Your task to perform on an android device: toggle priority inbox in the gmail app Image 0: 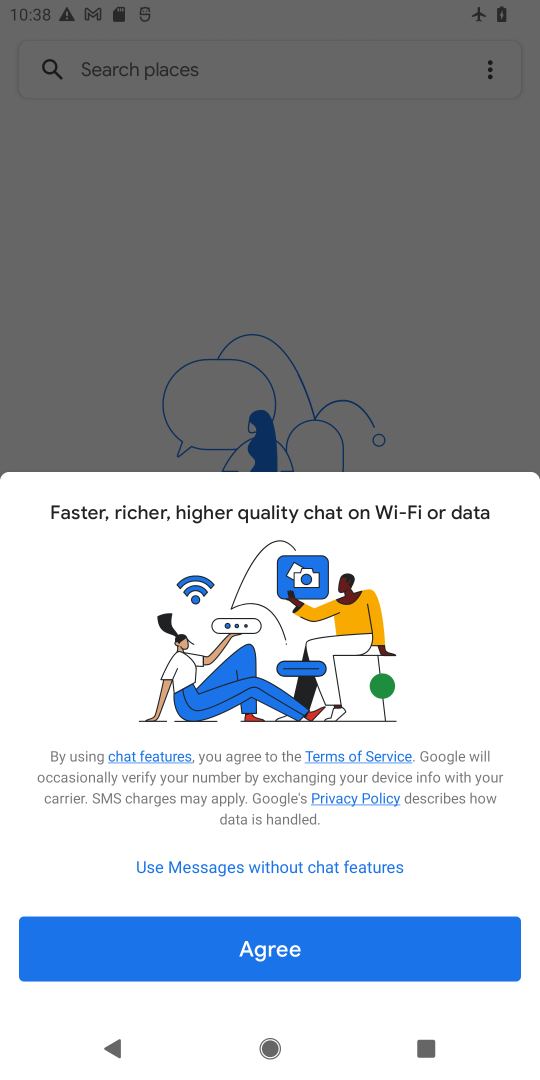
Step 0: press home button
Your task to perform on an android device: toggle priority inbox in the gmail app Image 1: 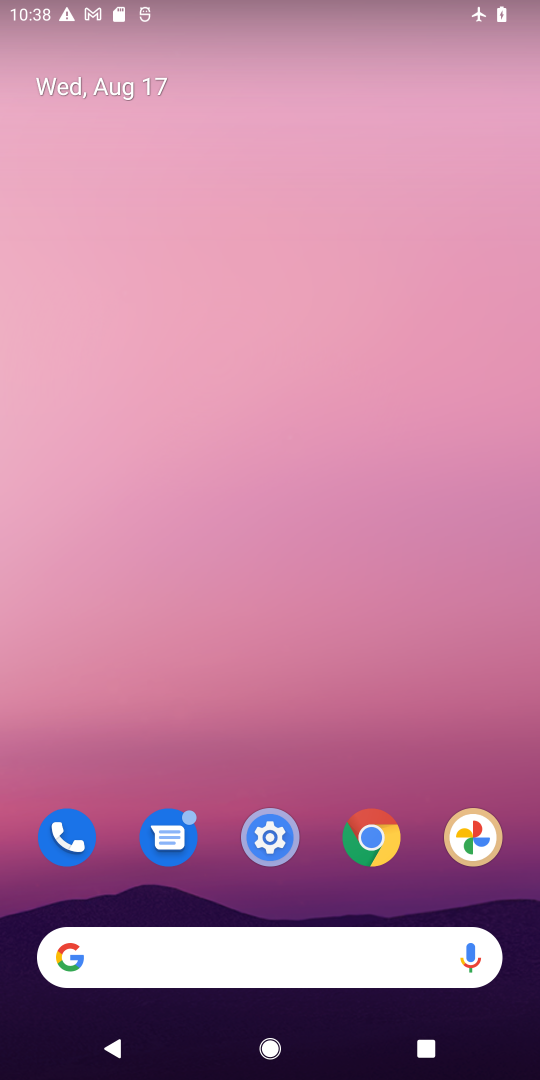
Step 1: drag from (182, 953) to (270, 353)
Your task to perform on an android device: toggle priority inbox in the gmail app Image 2: 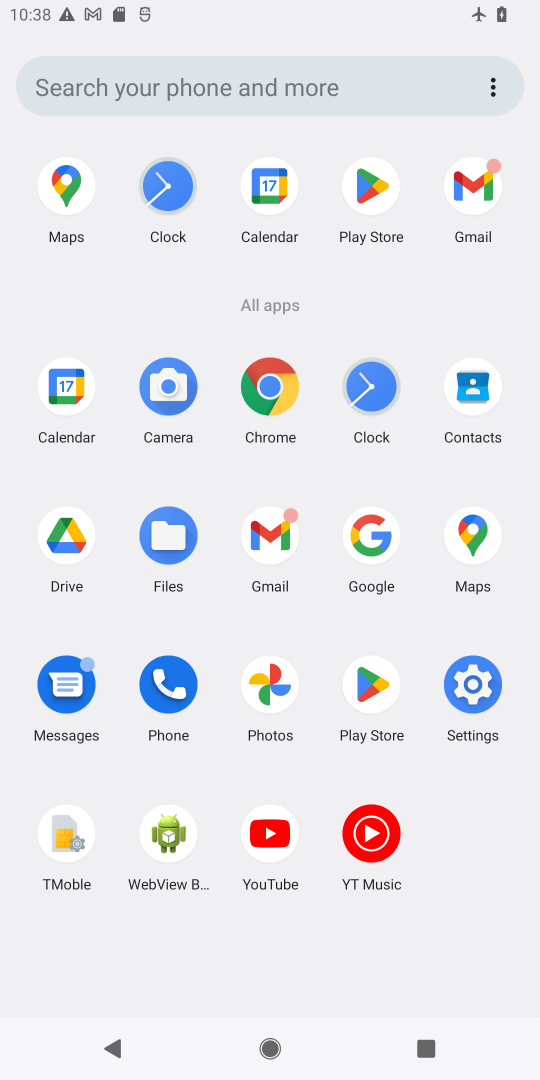
Step 2: click (467, 187)
Your task to perform on an android device: toggle priority inbox in the gmail app Image 3: 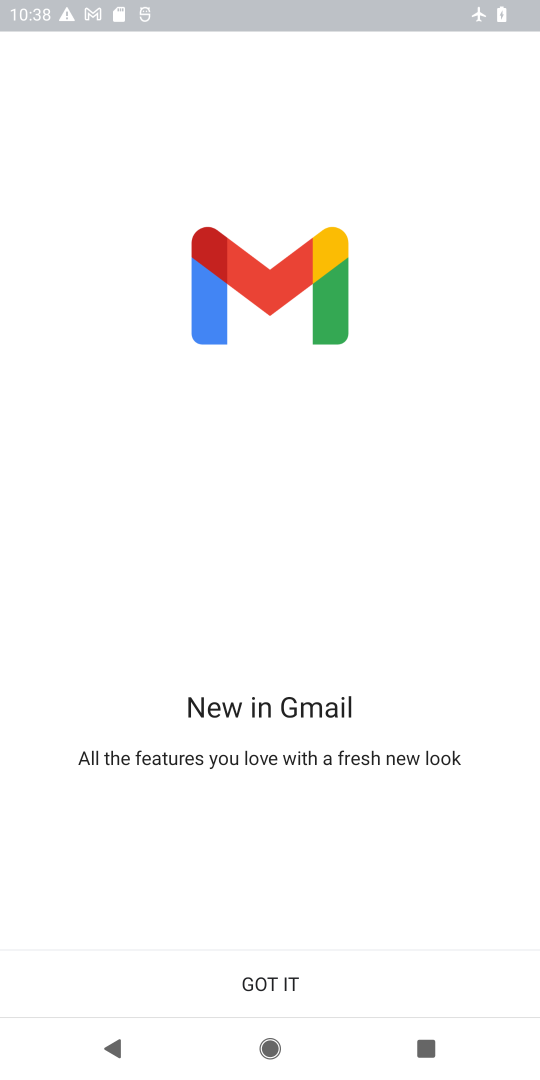
Step 3: click (261, 977)
Your task to perform on an android device: toggle priority inbox in the gmail app Image 4: 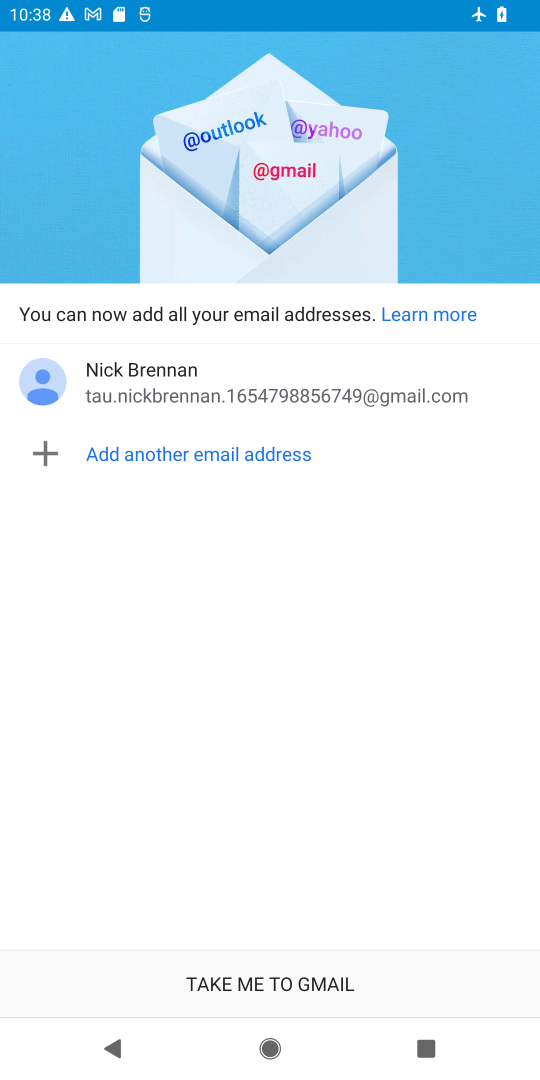
Step 4: click (261, 977)
Your task to perform on an android device: toggle priority inbox in the gmail app Image 5: 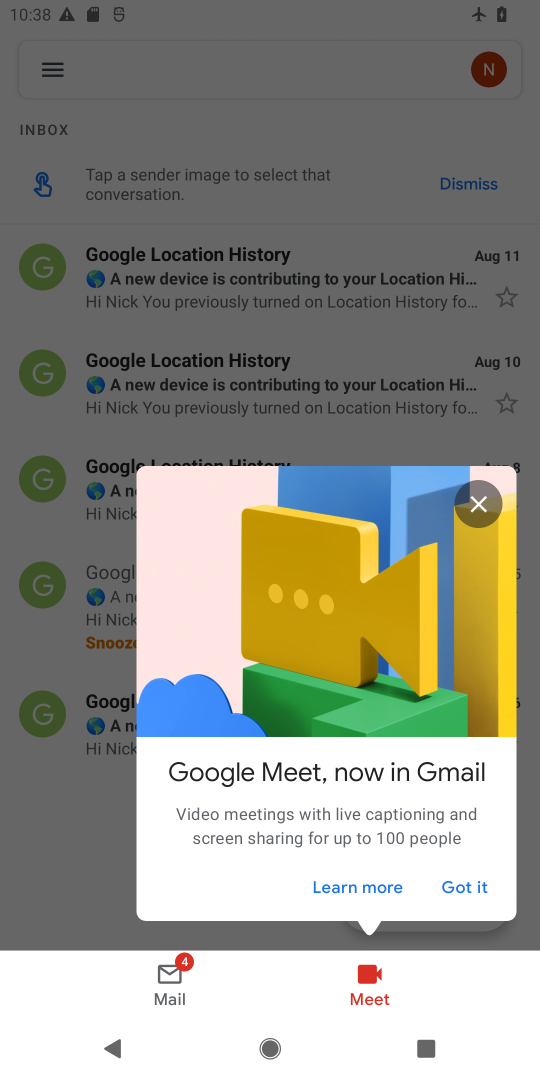
Step 5: click (459, 882)
Your task to perform on an android device: toggle priority inbox in the gmail app Image 6: 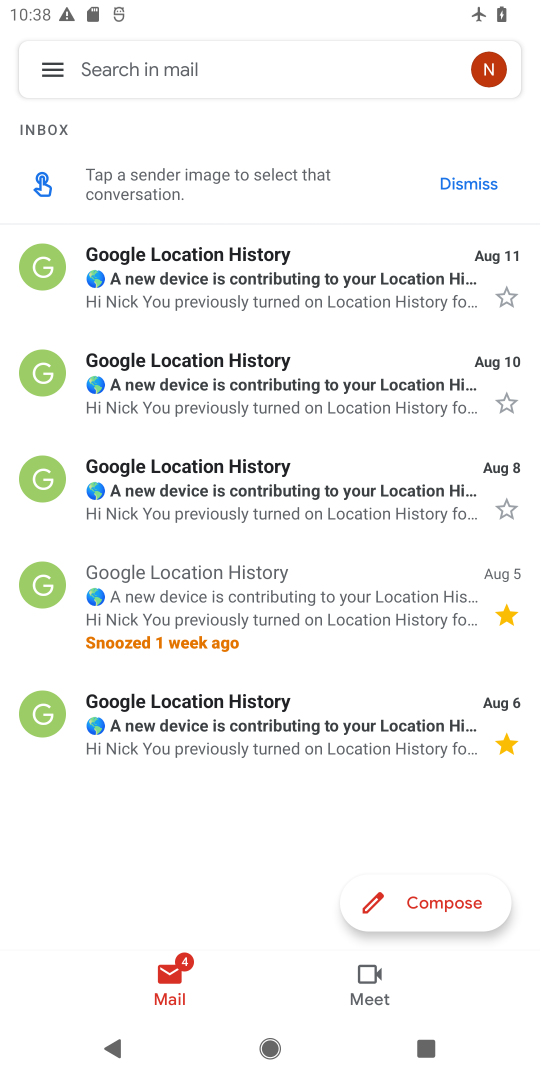
Step 6: click (55, 76)
Your task to perform on an android device: toggle priority inbox in the gmail app Image 7: 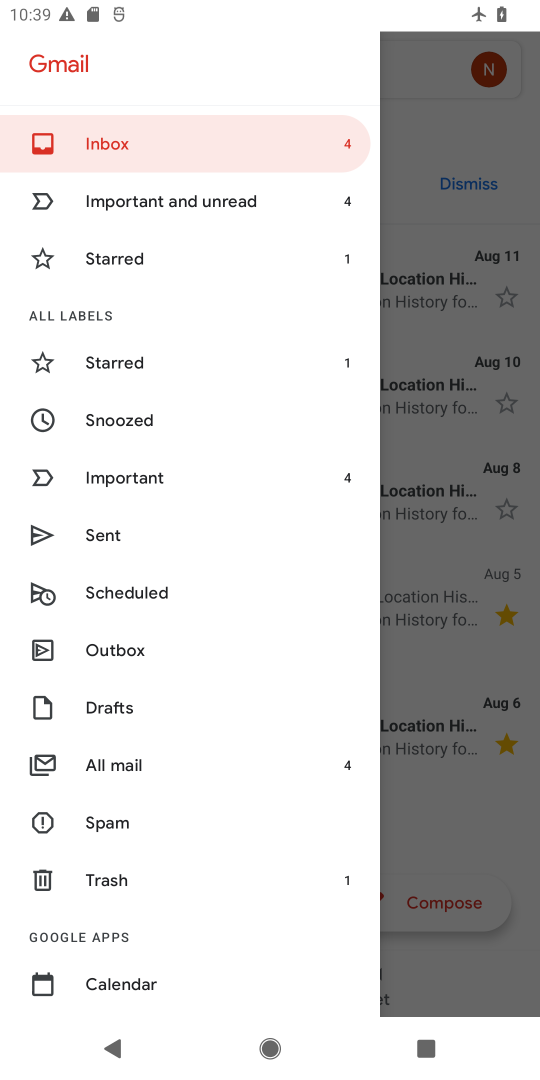
Step 7: drag from (141, 892) to (166, 548)
Your task to perform on an android device: toggle priority inbox in the gmail app Image 8: 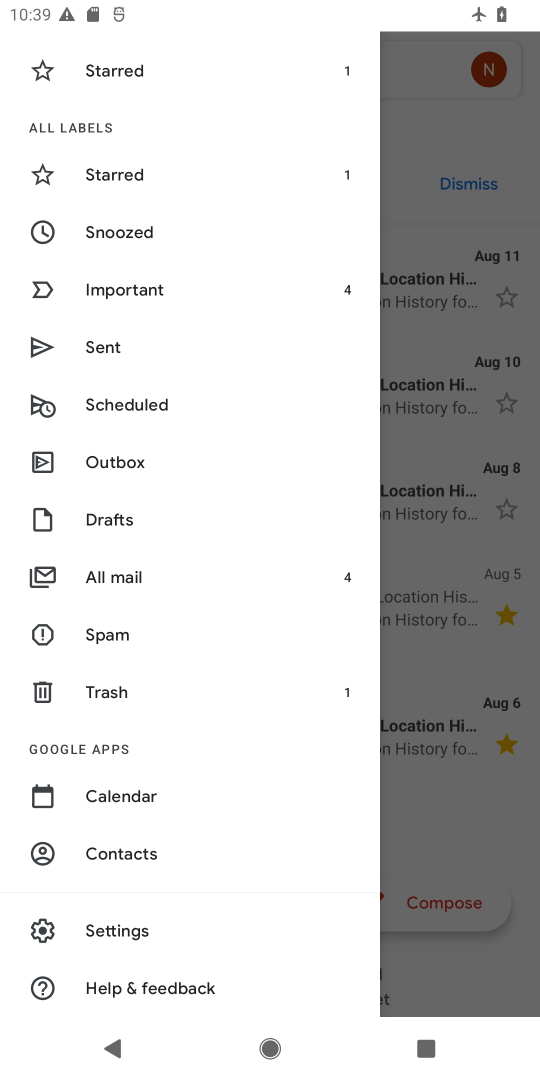
Step 8: click (140, 929)
Your task to perform on an android device: toggle priority inbox in the gmail app Image 9: 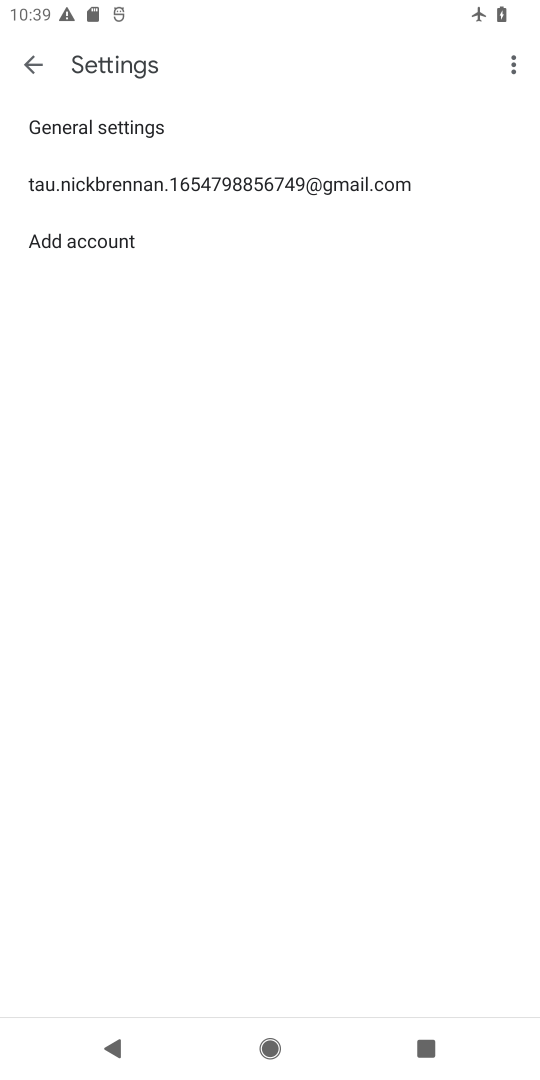
Step 9: click (181, 185)
Your task to perform on an android device: toggle priority inbox in the gmail app Image 10: 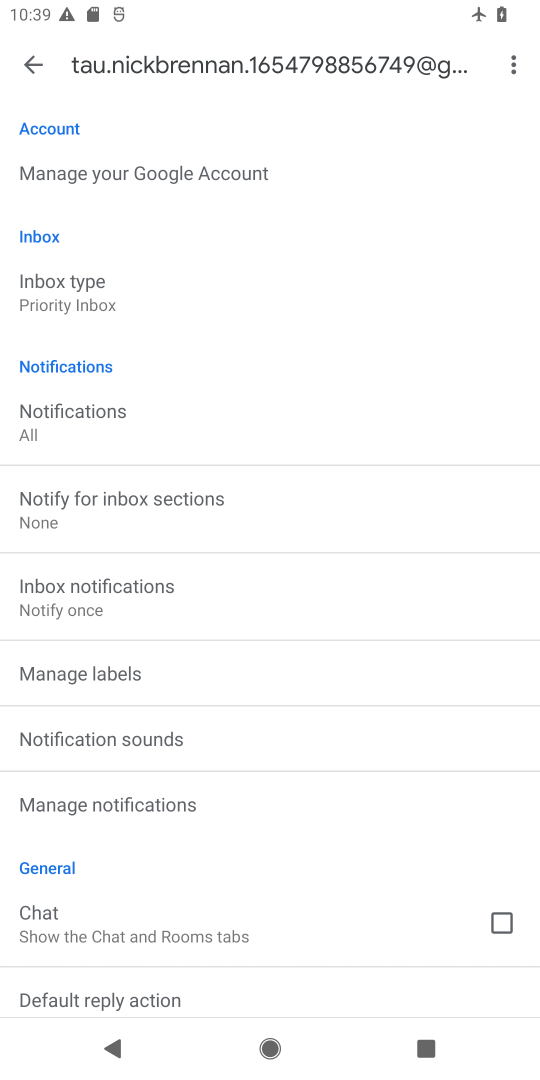
Step 10: click (76, 302)
Your task to perform on an android device: toggle priority inbox in the gmail app Image 11: 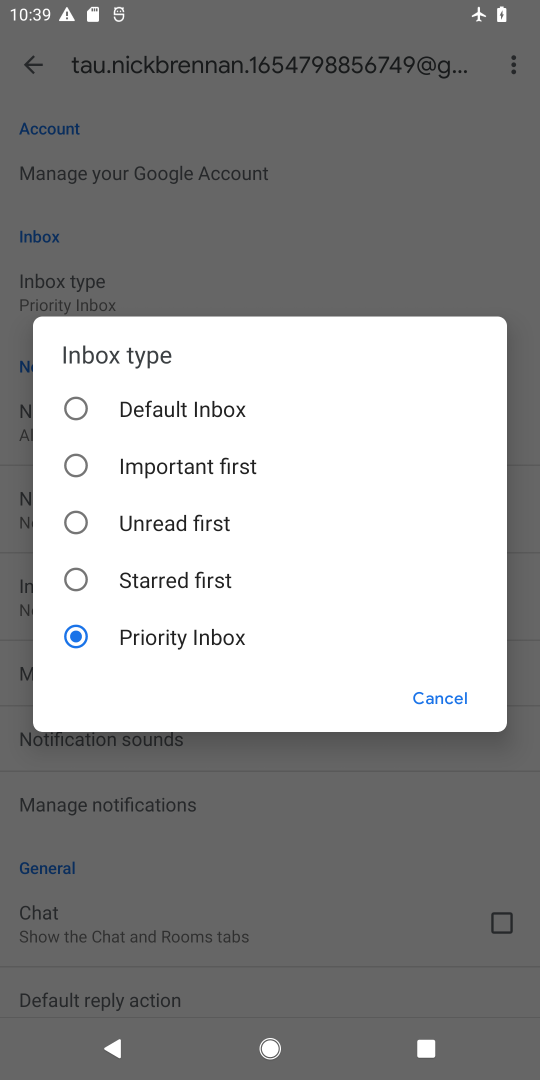
Step 11: click (70, 397)
Your task to perform on an android device: toggle priority inbox in the gmail app Image 12: 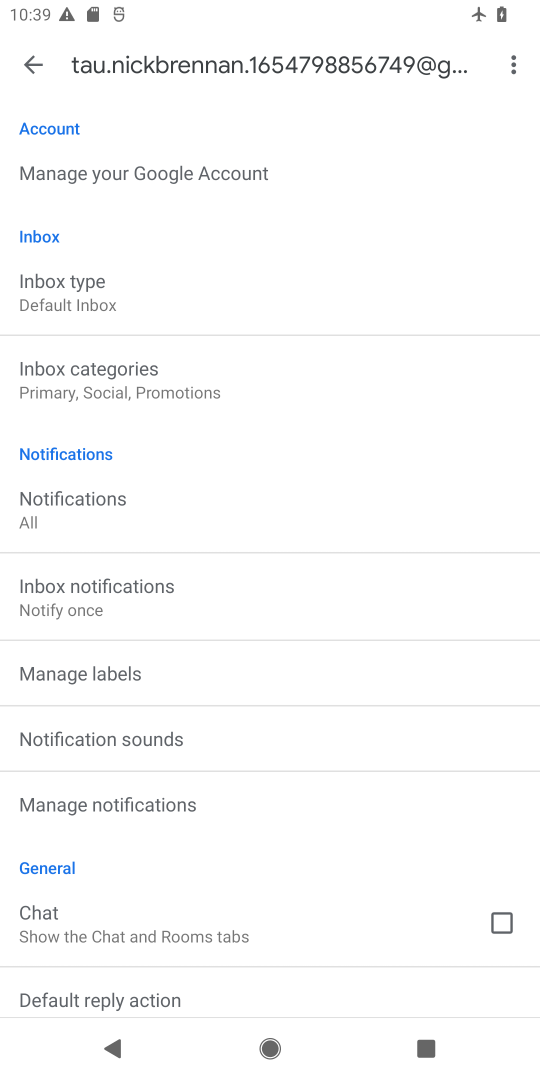
Step 12: task complete